Your task to perform on an android device: toggle priority inbox in the gmail app Image 0: 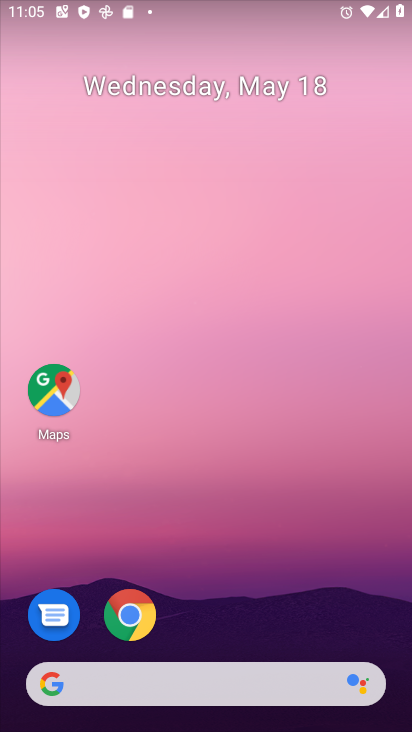
Step 0: drag from (213, 644) to (213, 395)
Your task to perform on an android device: toggle priority inbox in the gmail app Image 1: 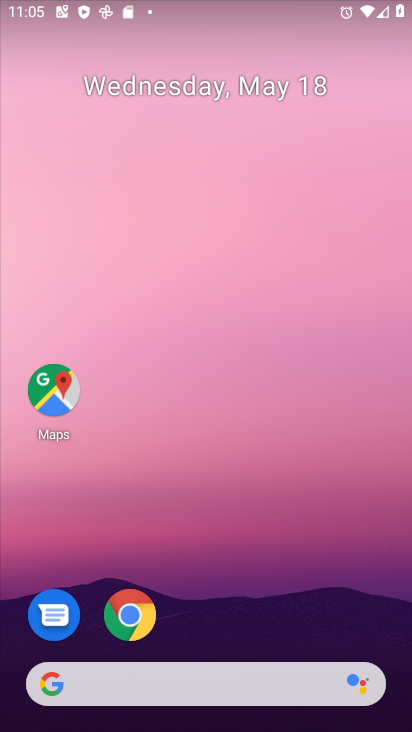
Step 1: drag from (229, 667) to (247, 331)
Your task to perform on an android device: toggle priority inbox in the gmail app Image 2: 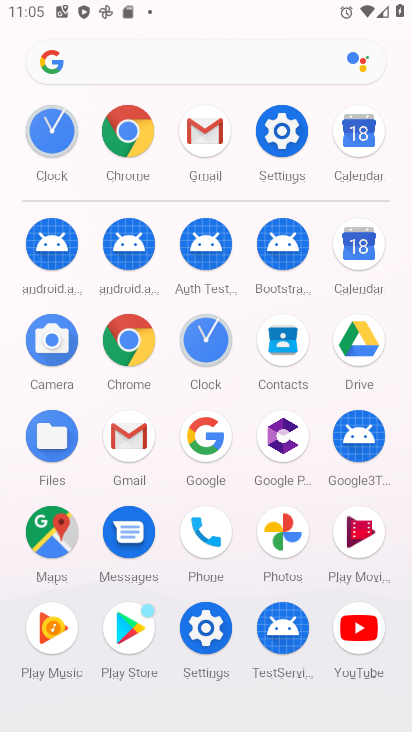
Step 2: click (222, 130)
Your task to perform on an android device: toggle priority inbox in the gmail app Image 3: 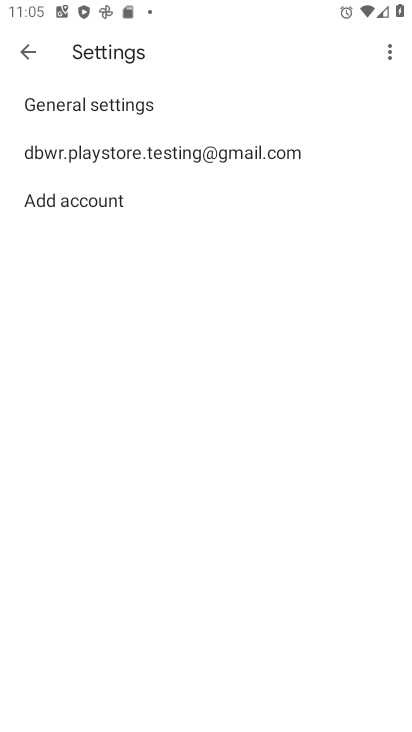
Step 3: click (150, 151)
Your task to perform on an android device: toggle priority inbox in the gmail app Image 4: 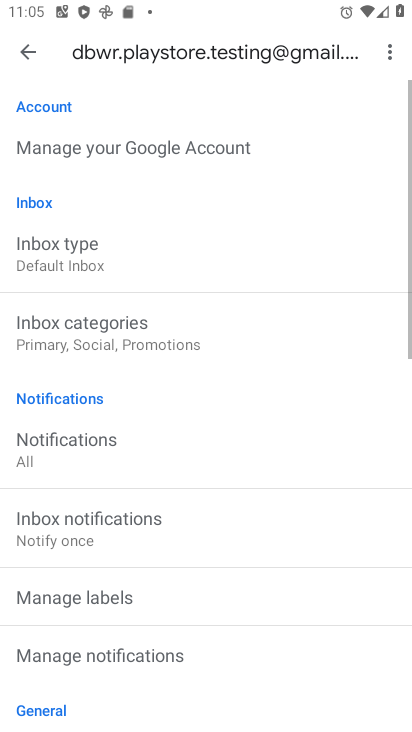
Step 4: click (73, 262)
Your task to perform on an android device: toggle priority inbox in the gmail app Image 5: 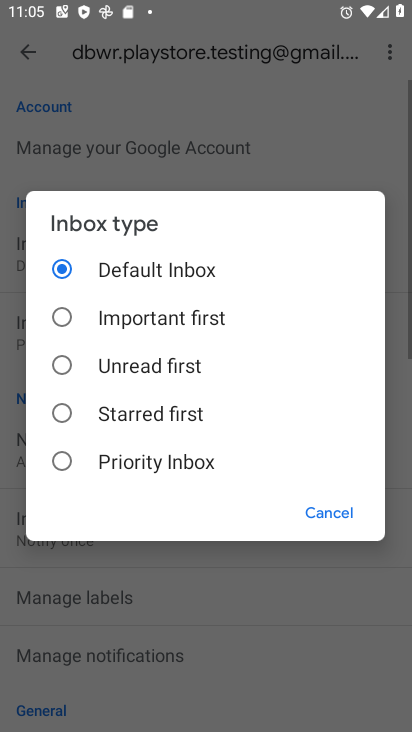
Step 5: click (110, 460)
Your task to perform on an android device: toggle priority inbox in the gmail app Image 6: 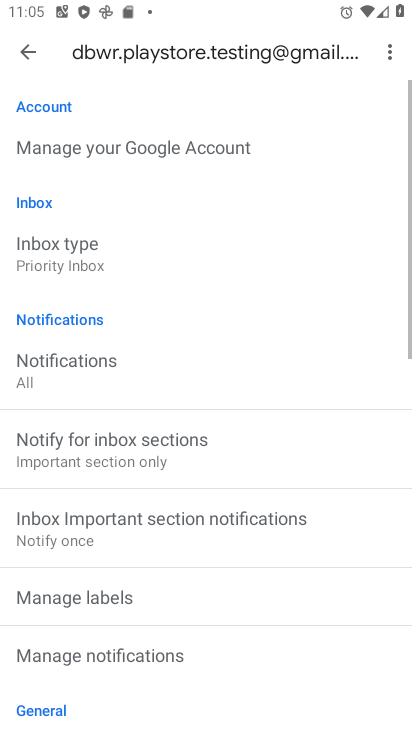
Step 6: task complete